Your task to perform on an android device: find snoozed emails in the gmail app Image 0: 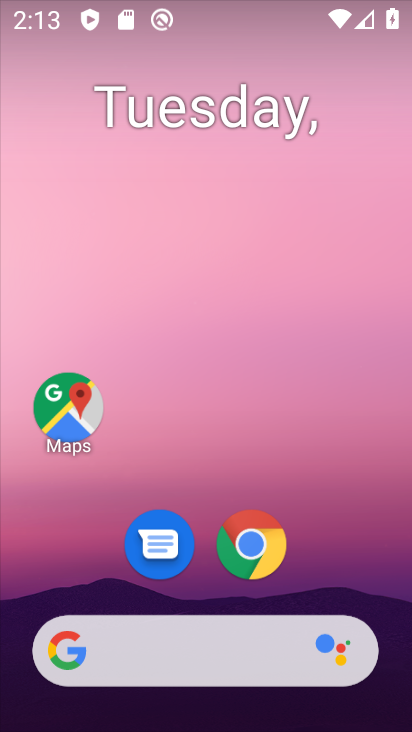
Step 0: drag from (173, 604) to (290, 3)
Your task to perform on an android device: find snoozed emails in the gmail app Image 1: 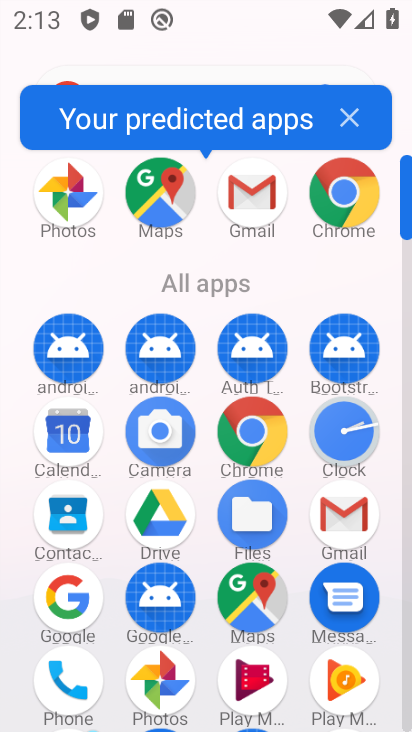
Step 1: click (346, 517)
Your task to perform on an android device: find snoozed emails in the gmail app Image 2: 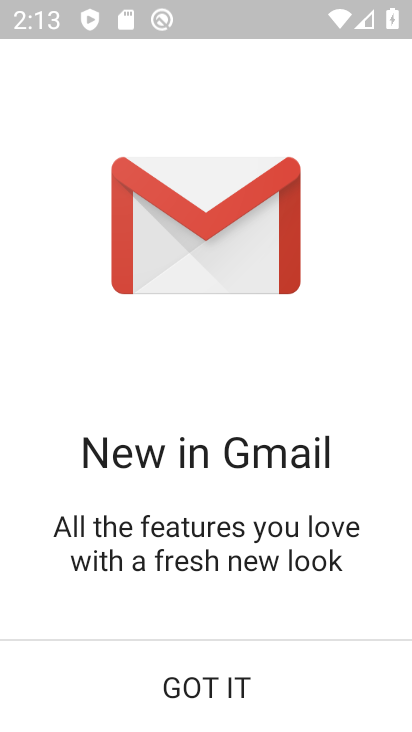
Step 2: click (224, 695)
Your task to perform on an android device: find snoozed emails in the gmail app Image 3: 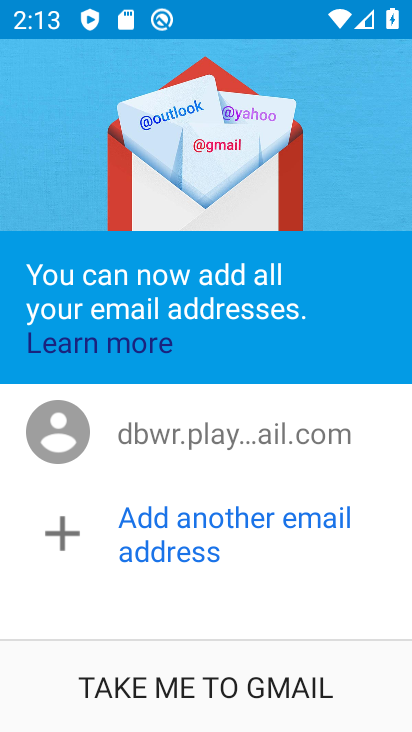
Step 3: click (242, 695)
Your task to perform on an android device: find snoozed emails in the gmail app Image 4: 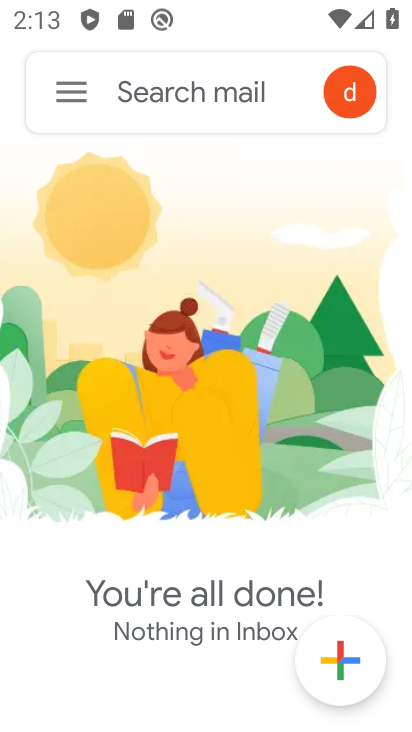
Step 4: click (77, 102)
Your task to perform on an android device: find snoozed emails in the gmail app Image 5: 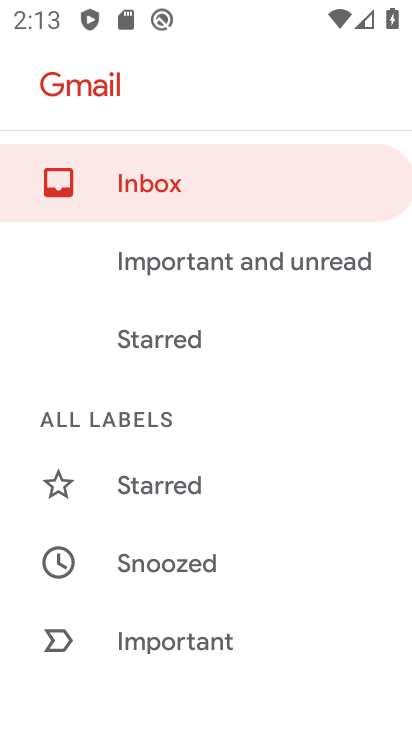
Step 5: drag from (168, 643) to (268, 180)
Your task to perform on an android device: find snoozed emails in the gmail app Image 6: 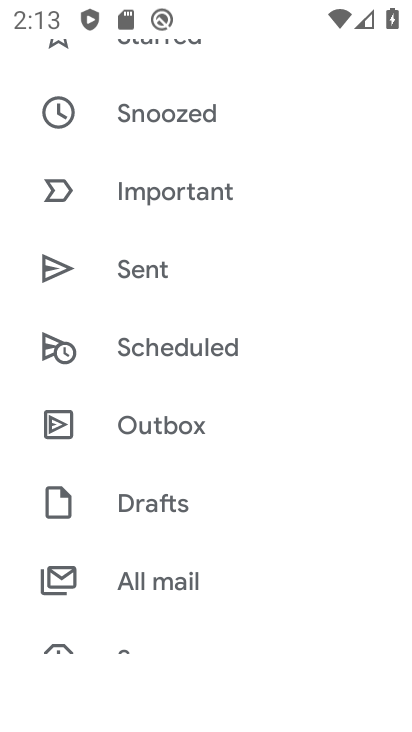
Step 6: click (166, 594)
Your task to perform on an android device: find snoozed emails in the gmail app Image 7: 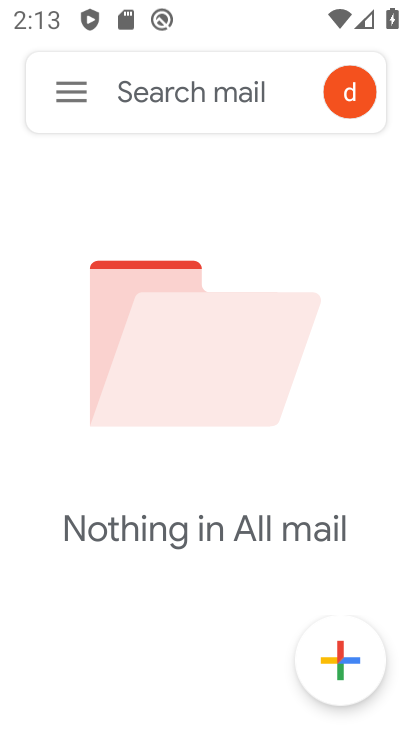
Step 7: task complete